Your task to perform on an android device: Is it going to rain this weekend? Image 0: 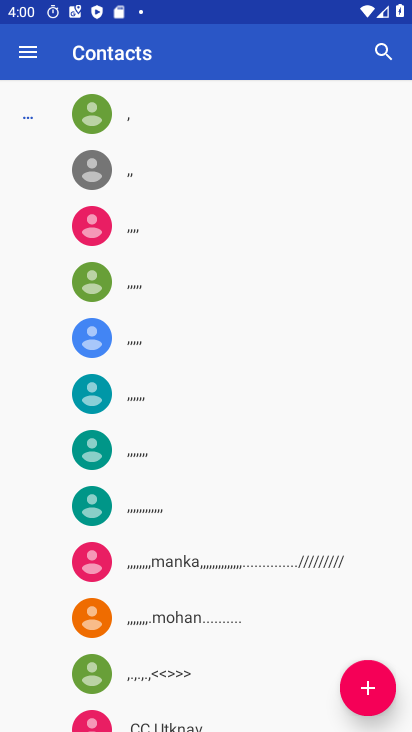
Step 0: press home button
Your task to perform on an android device: Is it going to rain this weekend? Image 1: 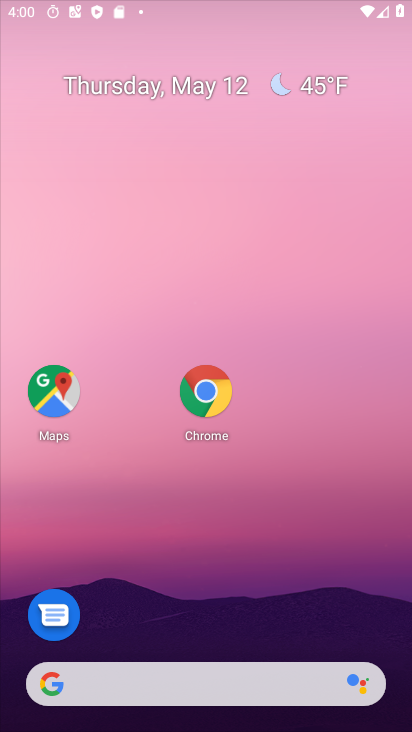
Step 1: drag from (205, 627) to (200, 82)
Your task to perform on an android device: Is it going to rain this weekend? Image 2: 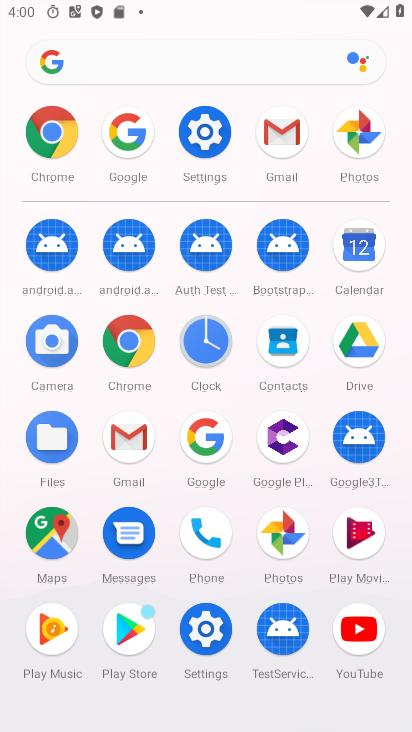
Step 2: click (203, 438)
Your task to perform on an android device: Is it going to rain this weekend? Image 3: 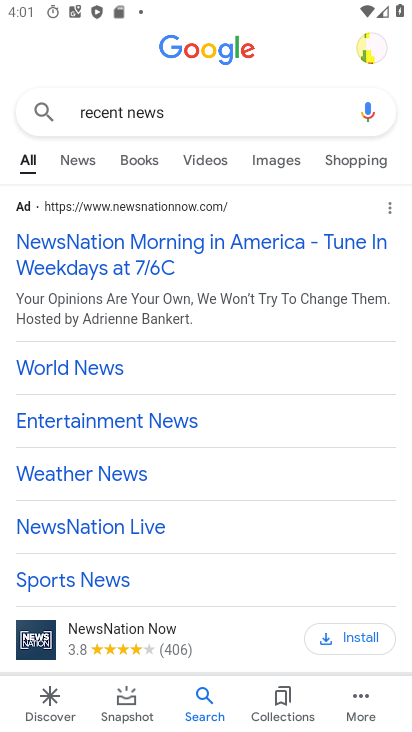
Step 3: click (238, 111)
Your task to perform on an android device: Is it going to rain this weekend? Image 4: 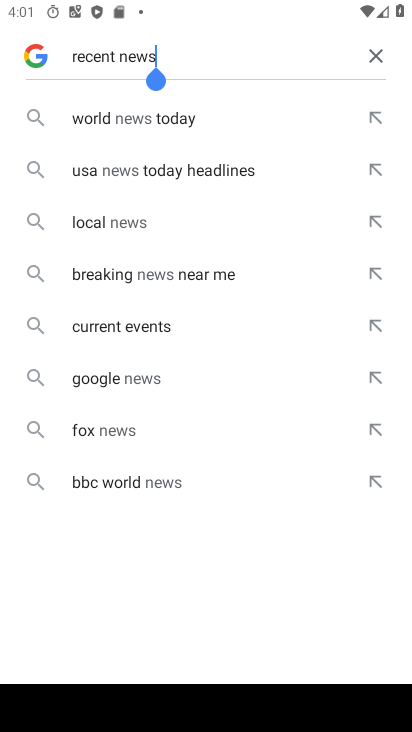
Step 4: click (366, 49)
Your task to perform on an android device: Is it going to rain this weekend? Image 5: 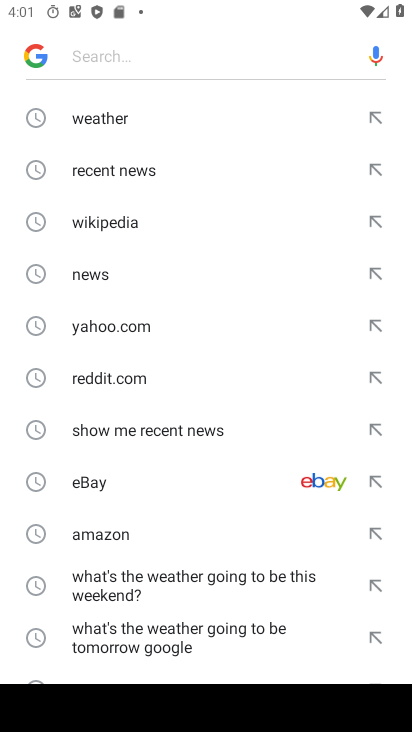
Step 5: drag from (163, 516) to (177, 192)
Your task to perform on an android device: Is it going to rain this weekend? Image 6: 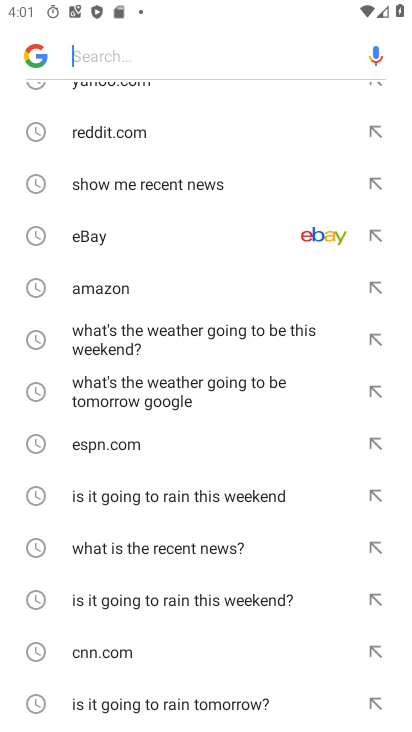
Step 6: click (176, 498)
Your task to perform on an android device: Is it going to rain this weekend? Image 7: 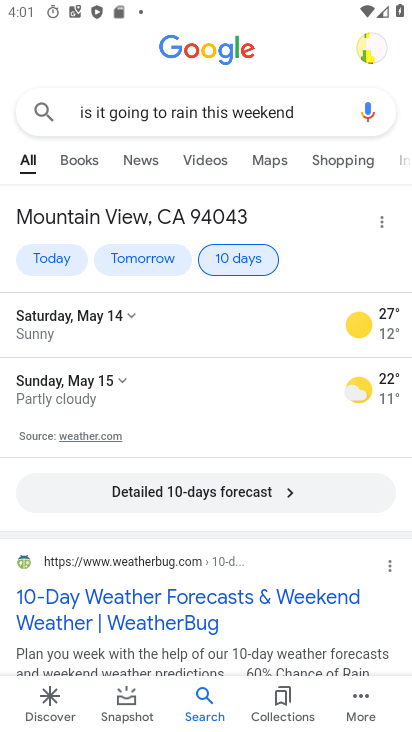
Step 7: task complete